Your task to perform on an android device: install app "ColorNote Notepad Notes" Image 0: 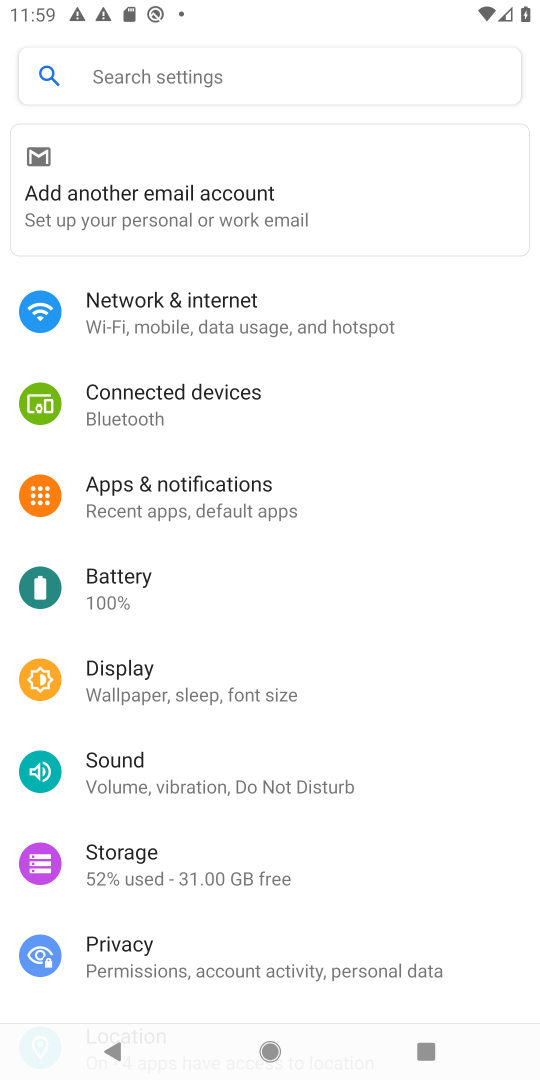
Step 0: press home button
Your task to perform on an android device: install app "ColorNote Notepad Notes" Image 1: 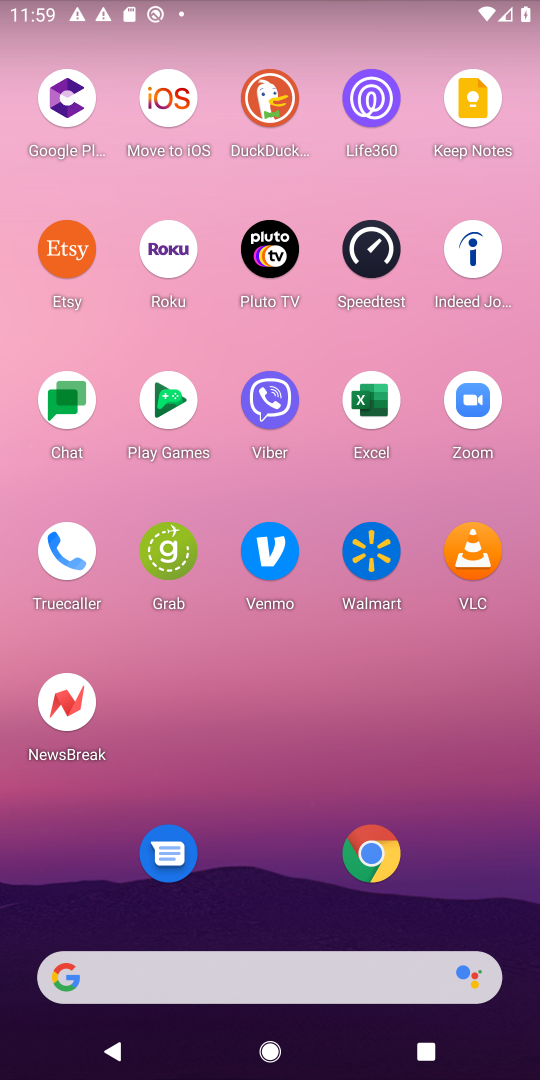
Step 1: drag from (309, 1075) to (262, 59)
Your task to perform on an android device: install app "ColorNote Notepad Notes" Image 2: 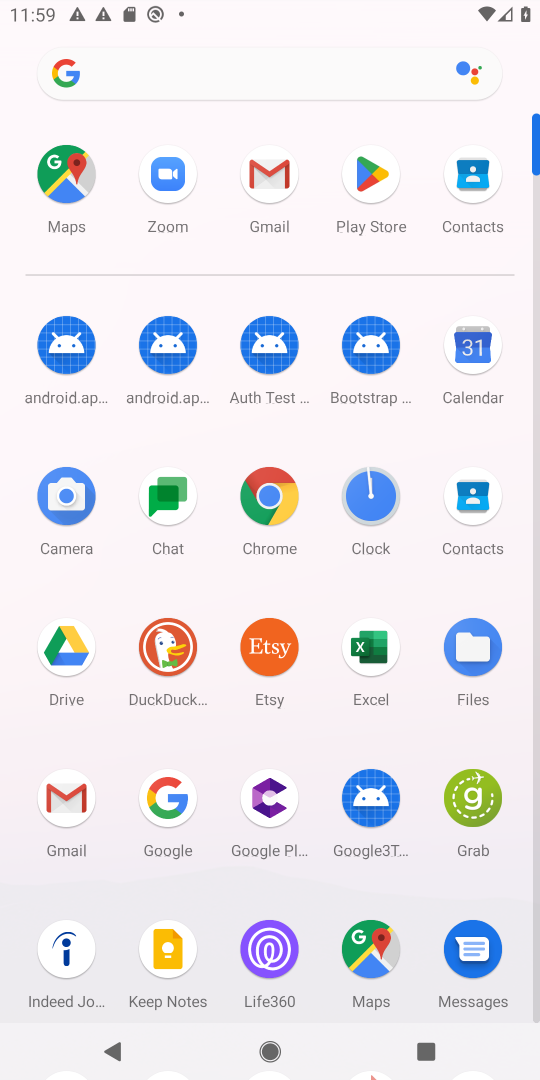
Step 2: click (365, 164)
Your task to perform on an android device: install app "ColorNote Notepad Notes" Image 3: 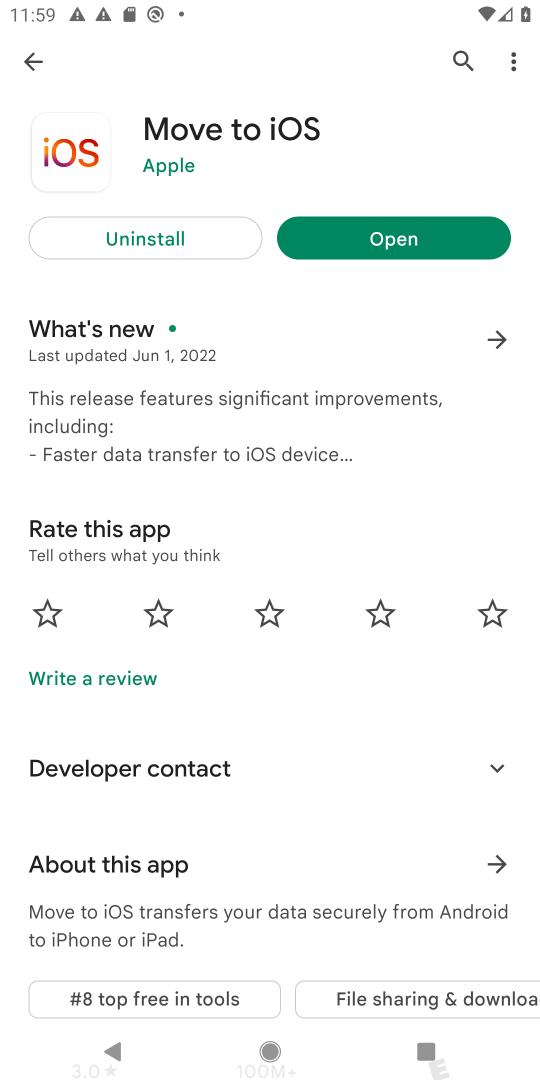
Step 3: click (462, 53)
Your task to perform on an android device: install app "ColorNote Notepad Notes" Image 4: 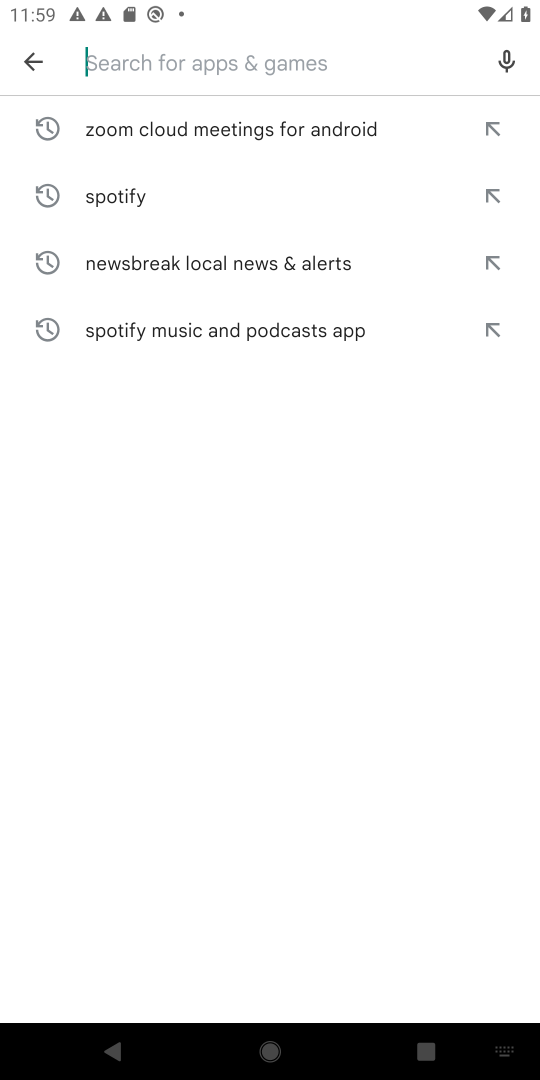
Step 4: type "ColorNote Notepad Notes"
Your task to perform on an android device: install app "ColorNote Notepad Notes" Image 5: 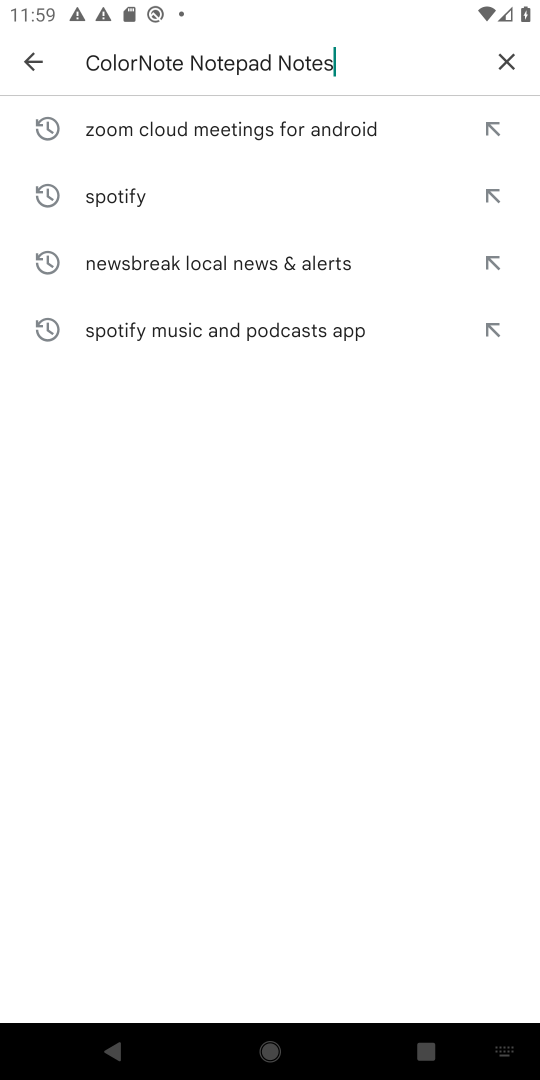
Step 5: type ""
Your task to perform on an android device: install app "ColorNote Notepad Notes" Image 6: 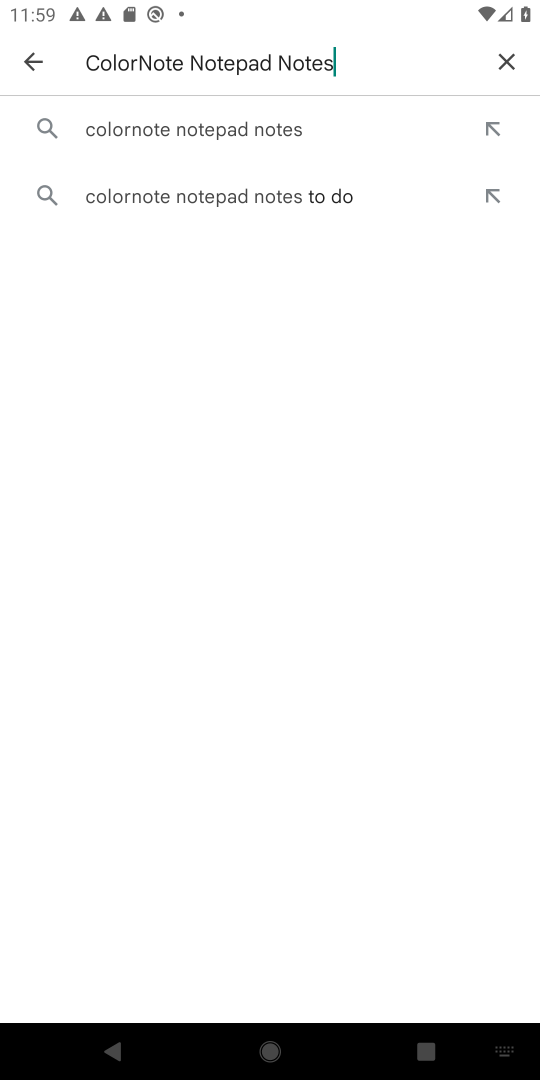
Step 6: click (268, 129)
Your task to perform on an android device: install app "ColorNote Notepad Notes" Image 7: 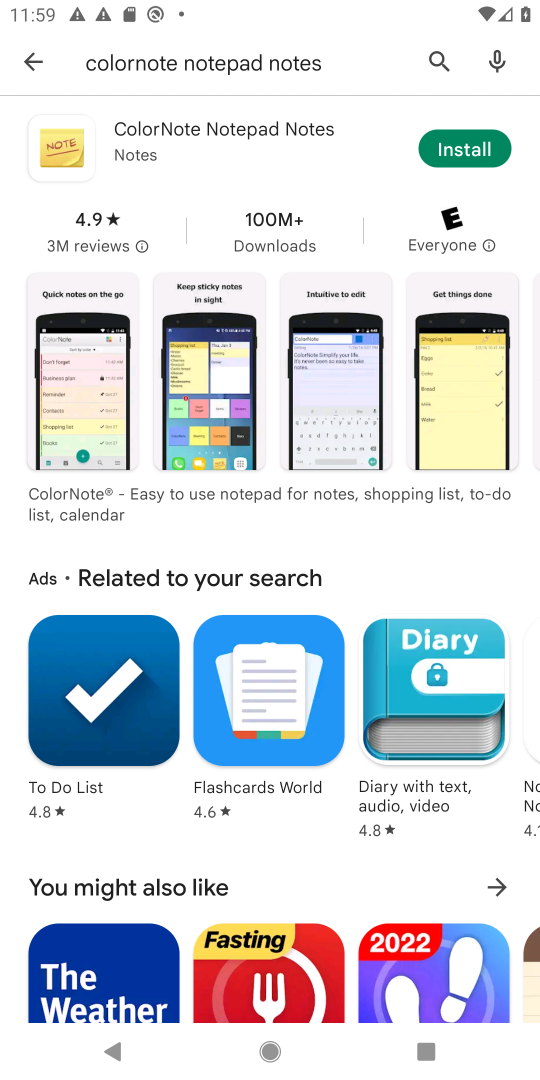
Step 7: click (464, 141)
Your task to perform on an android device: install app "ColorNote Notepad Notes" Image 8: 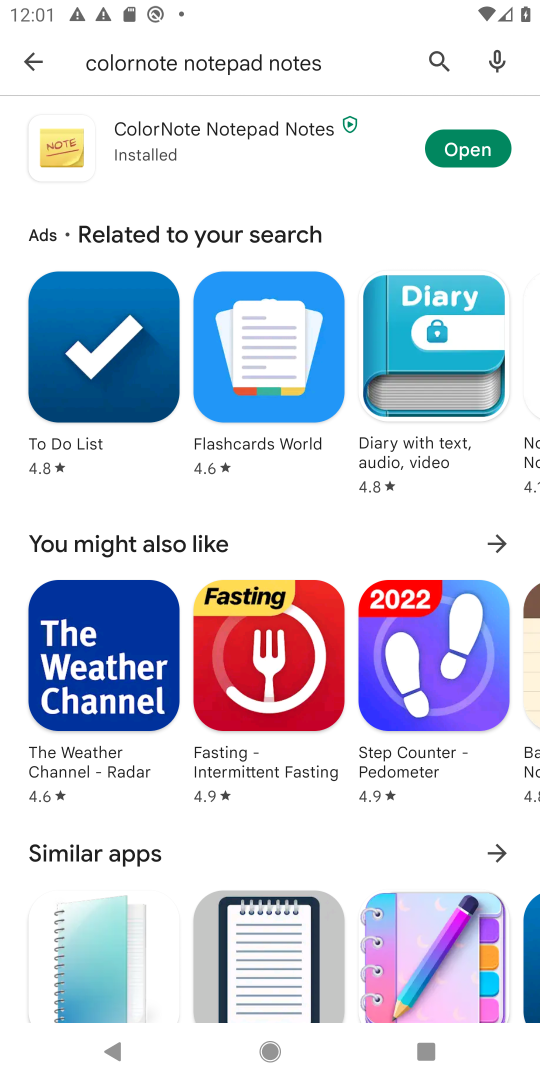
Step 8: task complete